Your task to perform on an android device: change the clock display to analog Image 0: 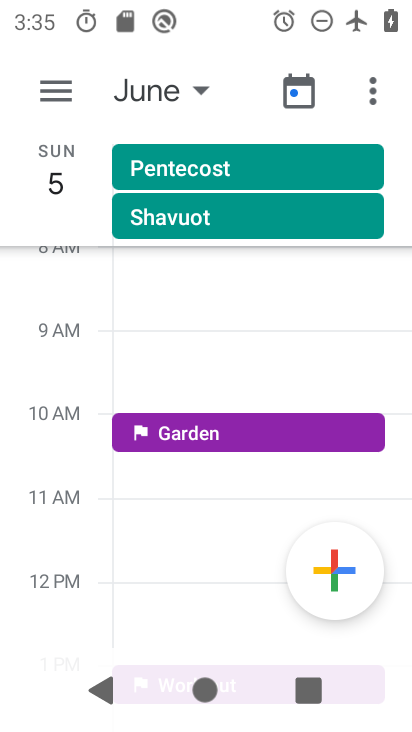
Step 0: press home button
Your task to perform on an android device: change the clock display to analog Image 1: 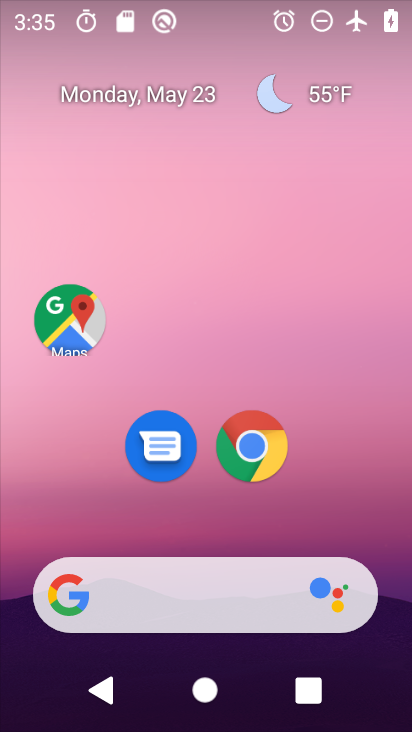
Step 1: drag from (218, 522) to (184, 130)
Your task to perform on an android device: change the clock display to analog Image 2: 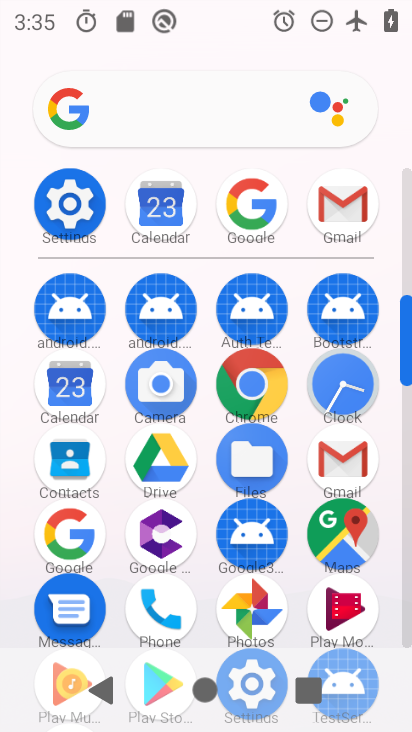
Step 2: click (329, 384)
Your task to perform on an android device: change the clock display to analog Image 3: 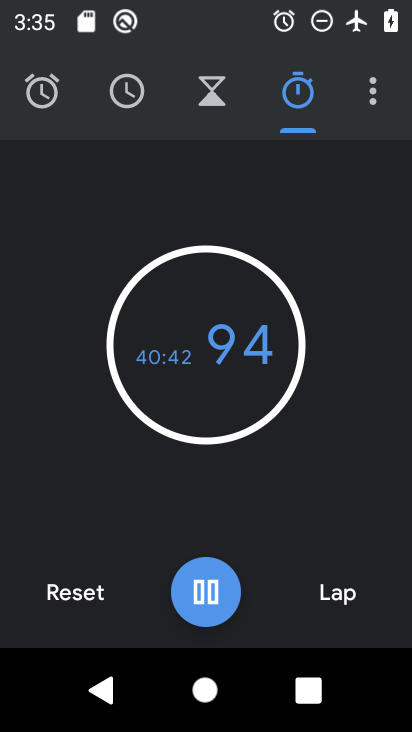
Step 3: click (358, 92)
Your task to perform on an android device: change the clock display to analog Image 4: 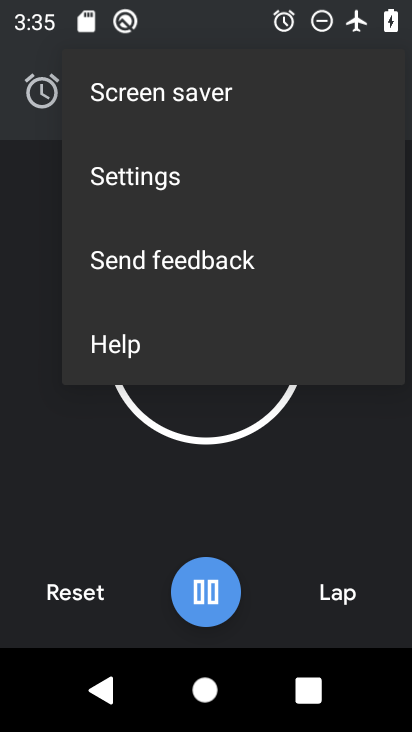
Step 4: click (207, 175)
Your task to perform on an android device: change the clock display to analog Image 5: 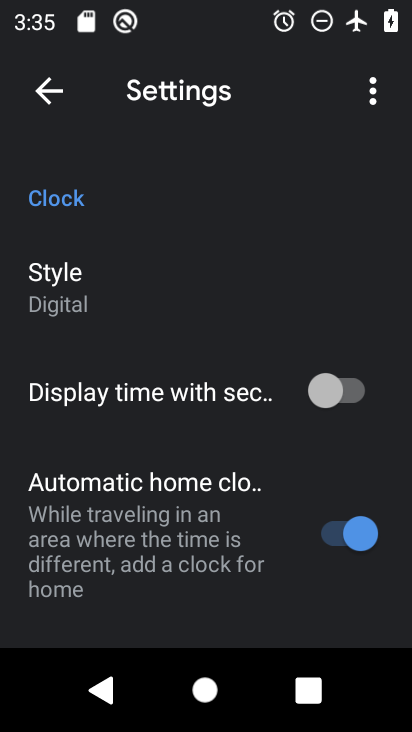
Step 5: click (79, 266)
Your task to perform on an android device: change the clock display to analog Image 6: 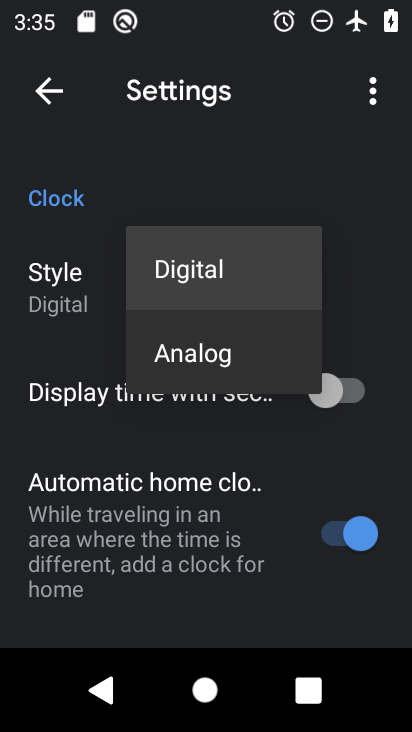
Step 6: click (176, 361)
Your task to perform on an android device: change the clock display to analog Image 7: 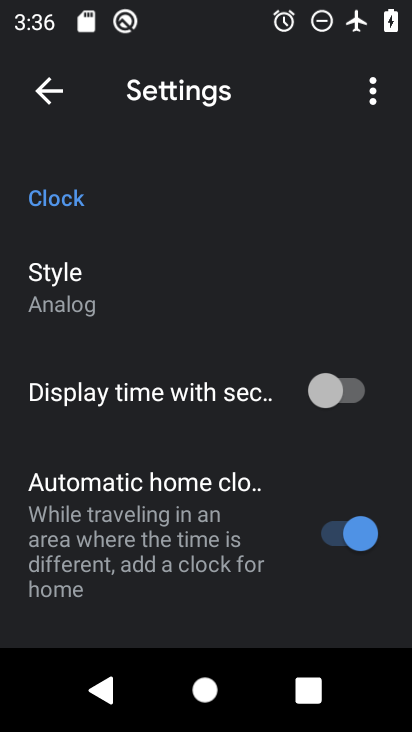
Step 7: task complete